Your task to perform on an android device: Go to battery settings Image 0: 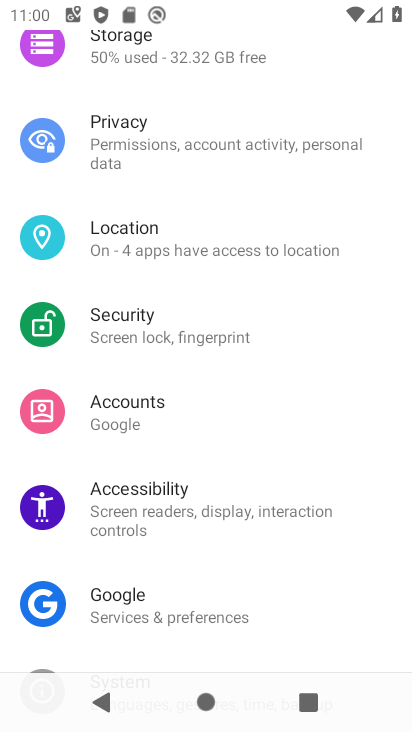
Step 0: drag from (206, 212) to (153, 659)
Your task to perform on an android device: Go to battery settings Image 1: 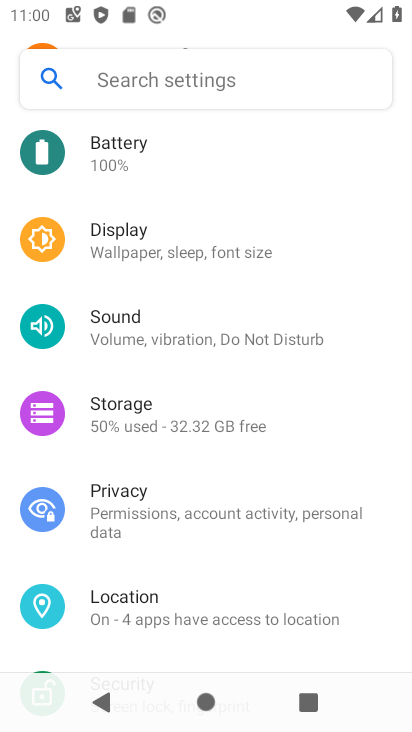
Step 1: click (130, 142)
Your task to perform on an android device: Go to battery settings Image 2: 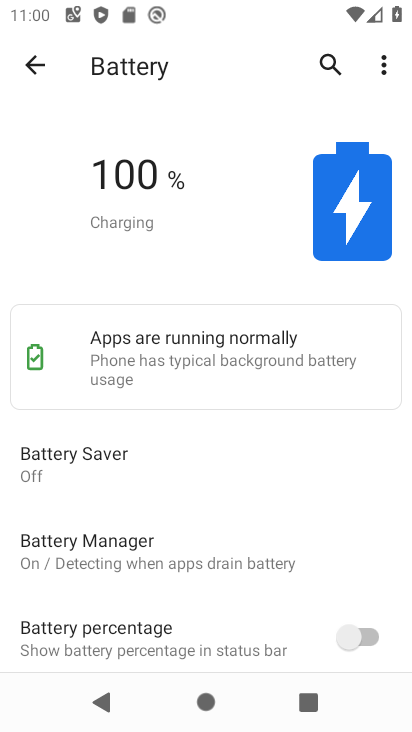
Step 2: task complete